Your task to perform on an android device: empty trash in the gmail app Image 0: 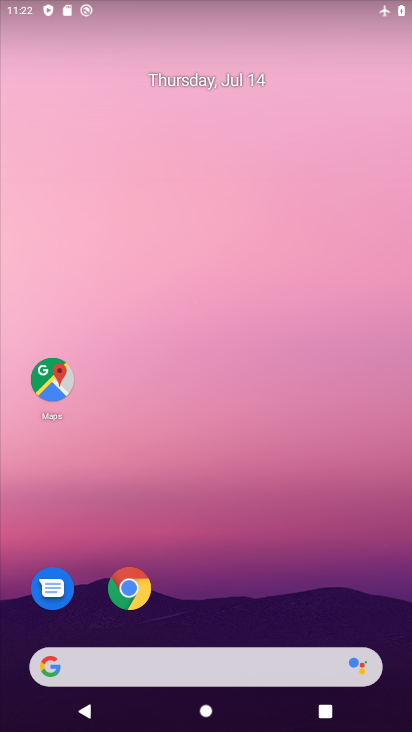
Step 0: drag from (202, 524) to (225, 80)
Your task to perform on an android device: empty trash in the gmail app Image 1: 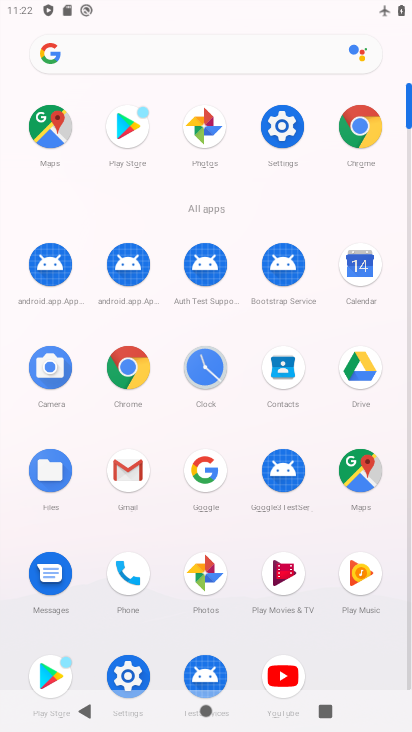
Step 1: click (127, 467)
Your task to perform on an android device: empty trash in the gmail app Image 2: 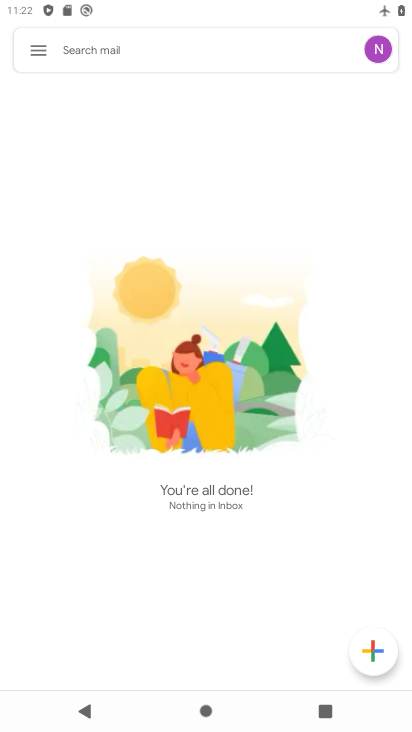
Step 2: click (33, 48)
Your task to perform on an android device: empty trash in the gmail app Image 3: 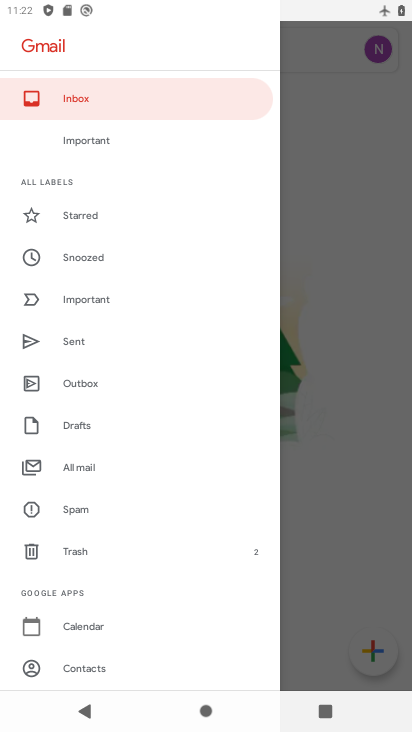
Step 3: click (69, 554)
Your task to perform on an android device: empty trash in the gmail app Image 4: 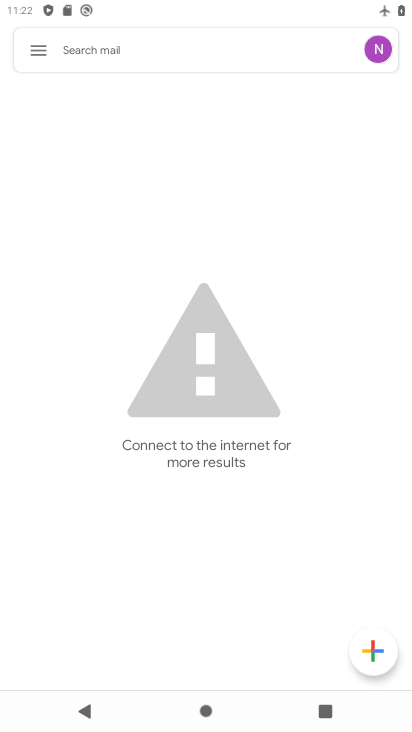
Step 4: task complete